Your task to perform on an android device: Open display settings Image 0: 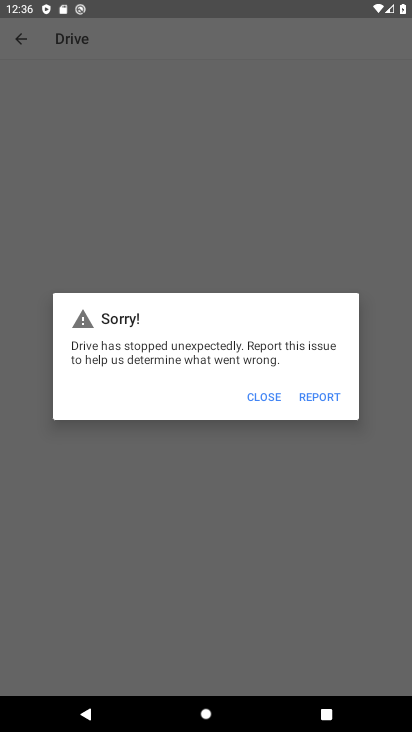
Step 0: press home button
Your task to perform on an android device: Open display settings Image 1: 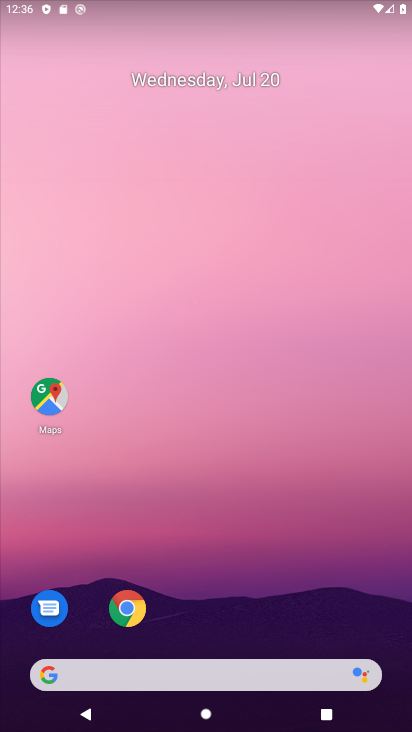
Step 1: drag from (197, 633) to (223, 222)
Your task to perform on an android device: Open display settings Image 2: 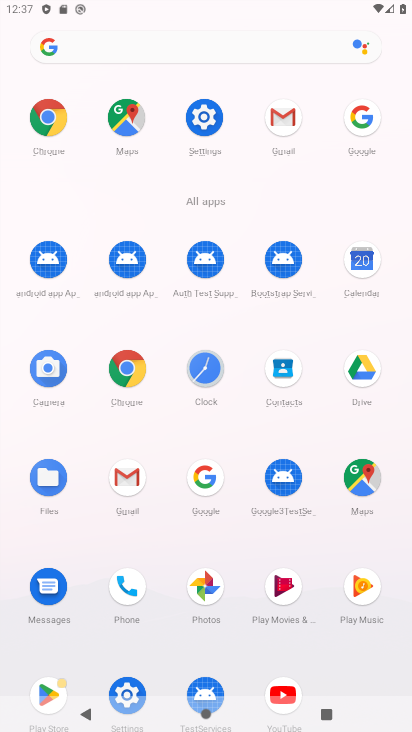
Step 2: click (205, 119)
Your task to perform on an android device: Open display settings Image 3: 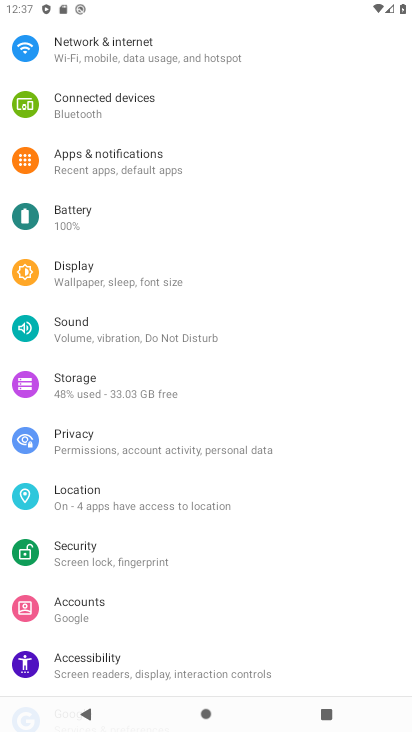
Step 3: click (83, 271)
Your task to perform on an android device: Open display settings Image 4: 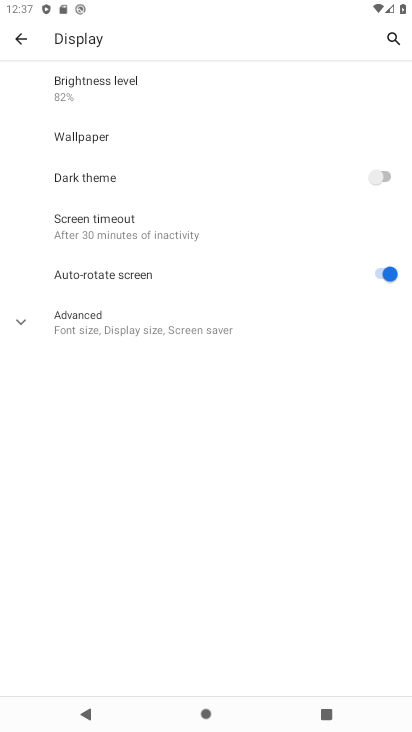
Step 4: click (104, 312)
Your task to perform on an android device: Open display settings Image 5: 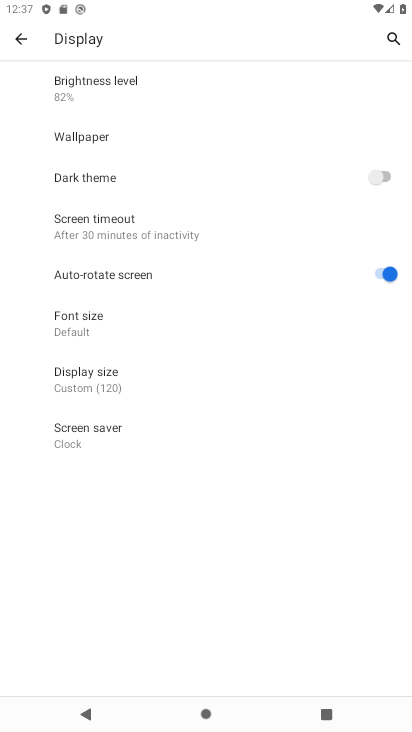
Step 5: task complete